Your task to perform on an android device: Open Google Chrome Image 0: 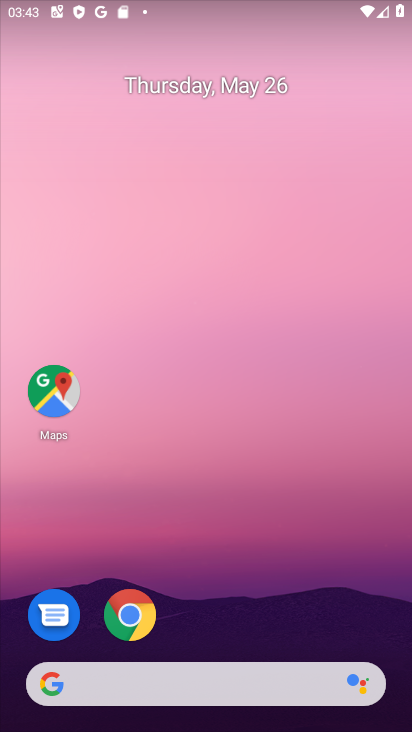
Step 0: click (139, 609)
Your task to perform on an android device: Open Google Chrome Image 1: 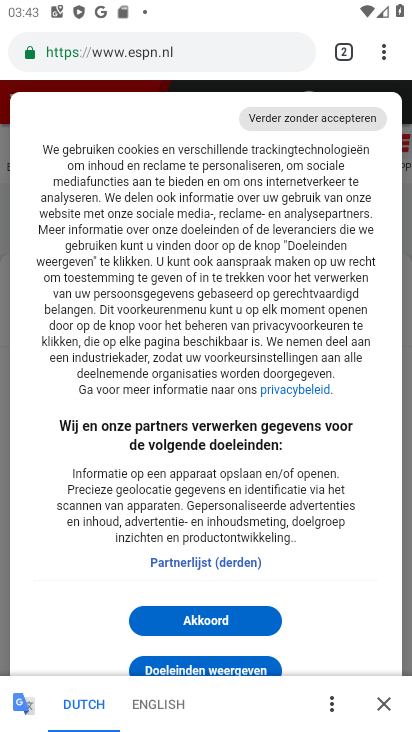
Step 1: task complete